Your task to perform on an android device: Open Chrome and go to settings Image 0: 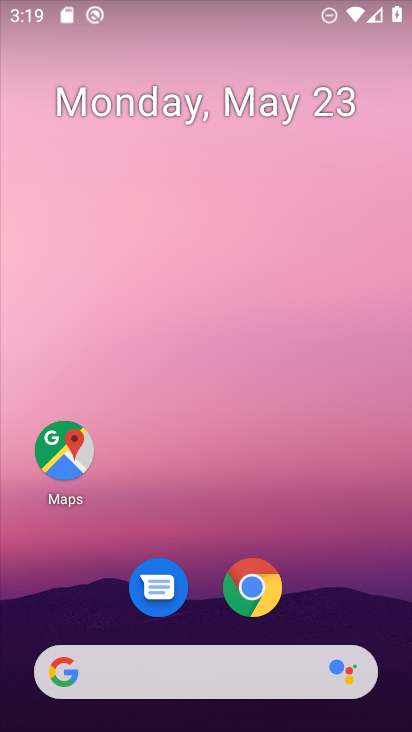
Step 0: click (248, 567)
Your task to perform on an android device: Open Chrome and go to settings Image 1: 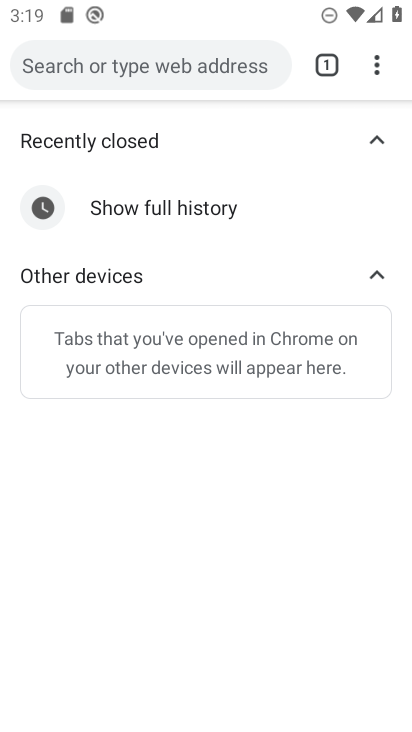
Step 1: click (375, 59)
Your task to perform on an android device: Open Chrome and go to settings Image 2: 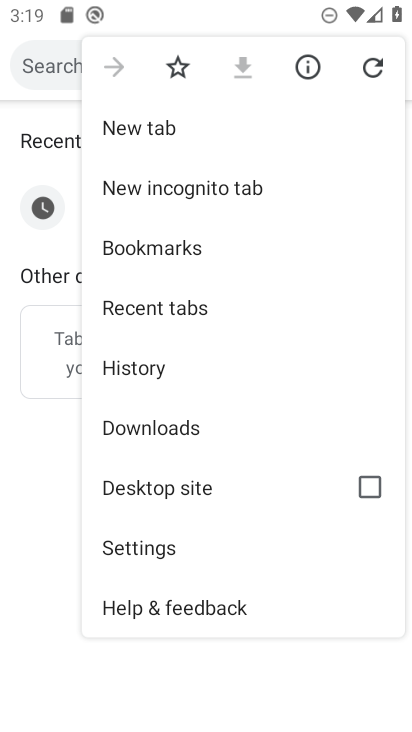
Step 2: click (166, 543)
Your task to perform on an android device: Open Chrome and go to settings Image 3: 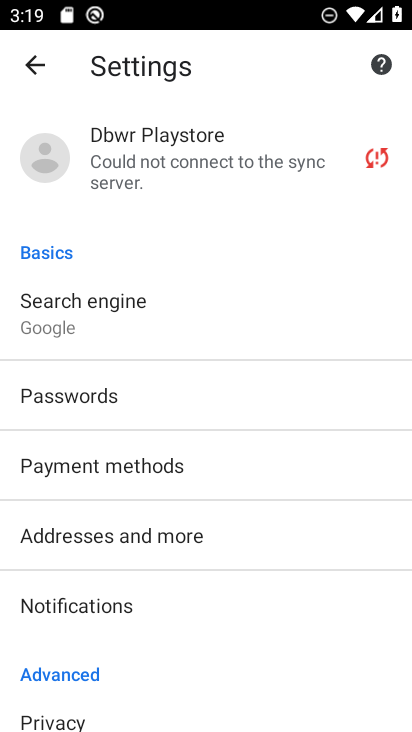
Step 3: task complete